Your task to perform on an android device: Open the Play Movies app and select the watchlist tab. Image 0: 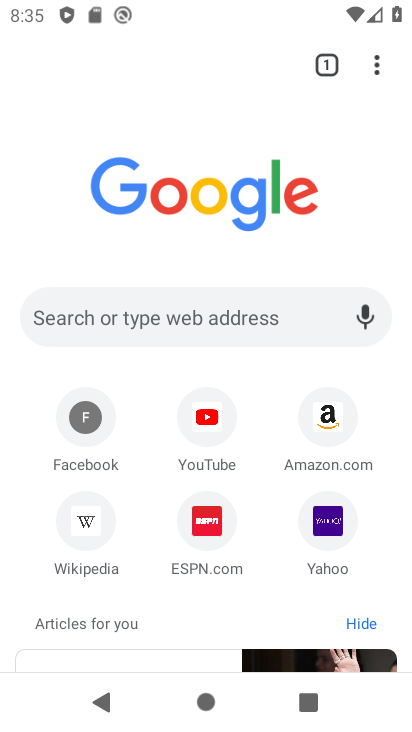
Step 0: drag from (225, 571) to (219, 56)
Your task to perform on an android device: Open the Play Movies app and select the watchlist tab. Image 1: 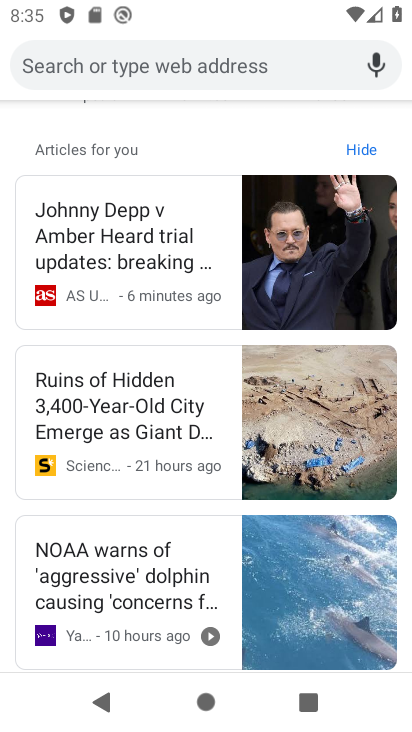
Step 1: press home button
Your task to perform on an android device: Open the Play Movies app and select the watchlist tab. Image 2: 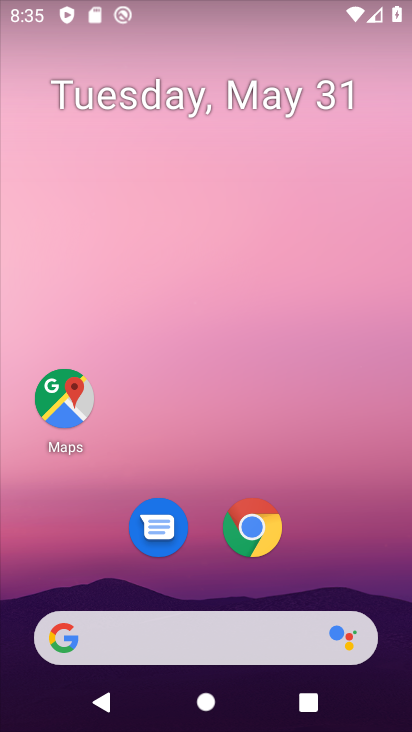
Step 2: drag from (192, 589) to (194, 335)
Your task to perform on an android device: Open the Play Movies app and select the watchlist tab. Image 3: 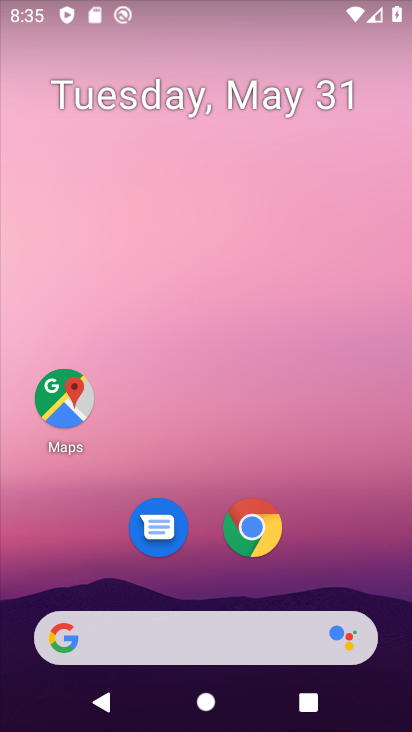
Step 3: drag from (211, 573) to (186, 52)
Your task to perform on an android device: Open the Play Movies app and select the watchlist tab. Image 4: 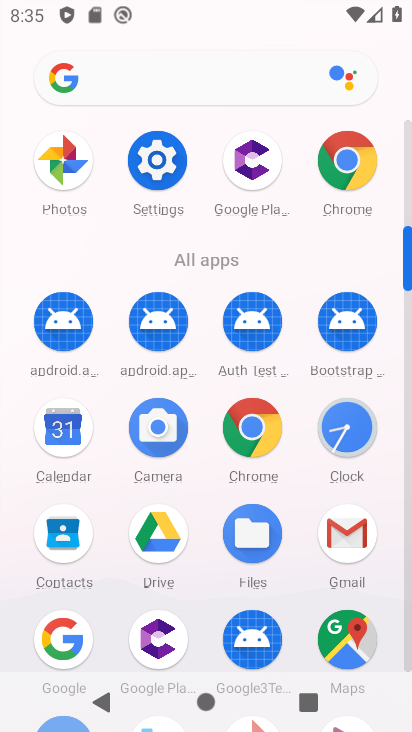
Step 4: drag from (272, 598) to (278, 305)
Your task to perform on an android device: Open the Play Movies app and select the watchlist tab. Image 5: 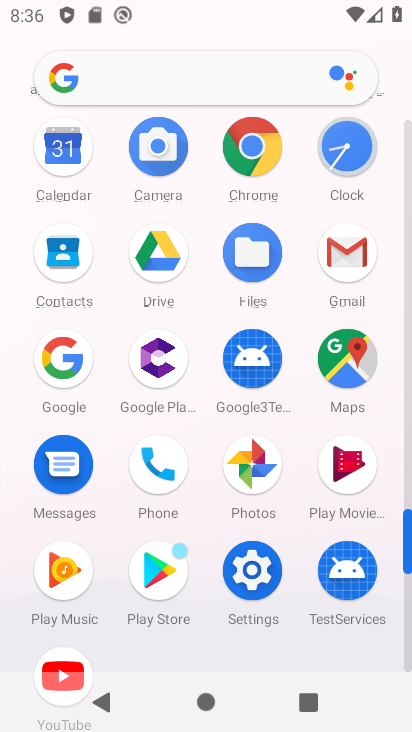
Step 5: click (341, 483)
Your task to perform on an android device: Open the Play Movies app and select the watchlist tab. Image 6: 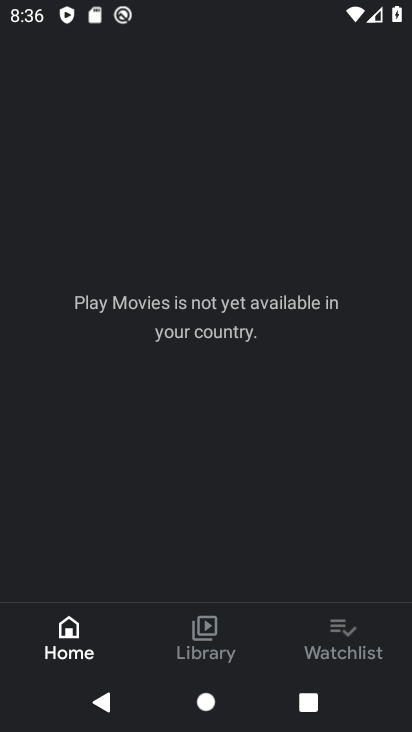
Step 6: click (342, 648)
Your task to perform on an android device: Open the Play Movies app and select the watchlist tab. Image 7: 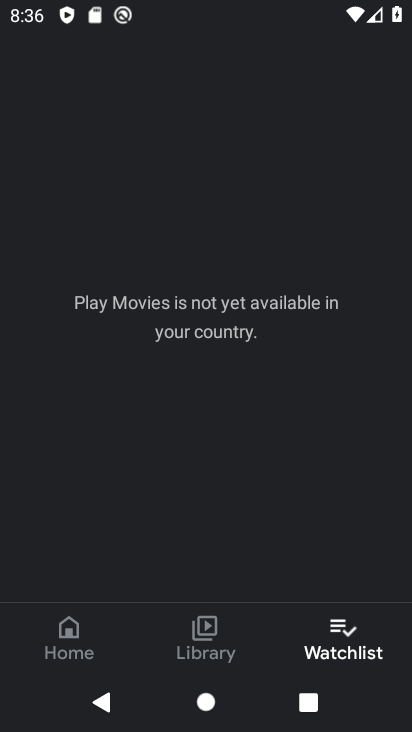
Step 7: task complete